Your task to perform on an android device: change your default location settings in chrome Image 0: 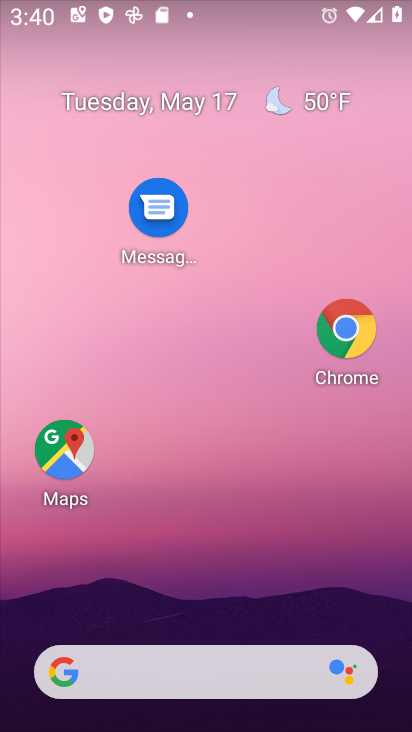
Step 0: drag from (260, 595) to (257, 118)
Your task to perform on an android device: change your default location settings in chrome Image 1: 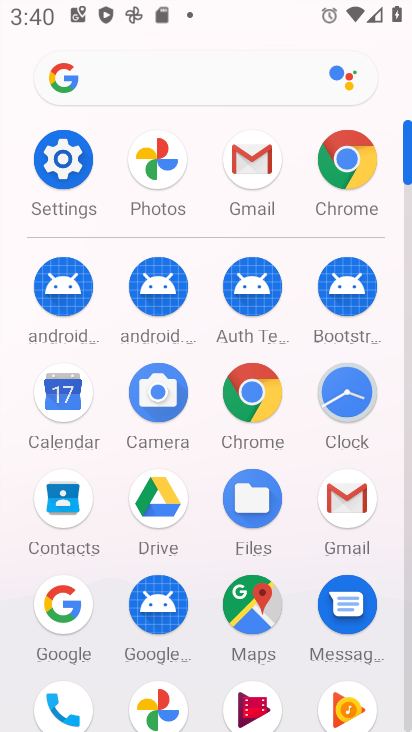
Step 1: click (358, 174)
Your task to perform on an android device: change your default location settings in chrome Image 2: 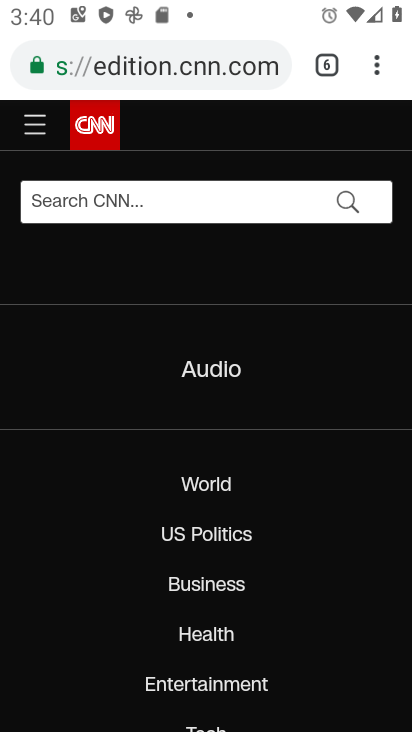
Step 2: click (378, 51)
Your task to perform on an android device: change your default location settings in chrome Image 3: 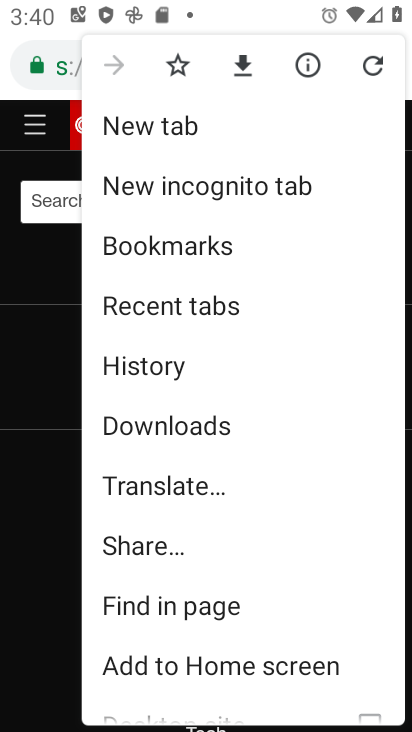
Step 3: drag from (165, 531) to (178, 288)
Your task to perform on an android device: change your default location settings in chrome Image 4: 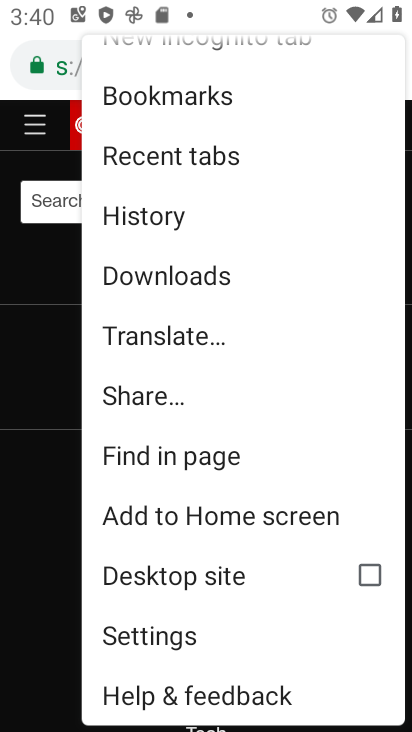
Step 4: click (163, 628)
Your task to perform on an android device: change your default location settings in chrome Image 5: 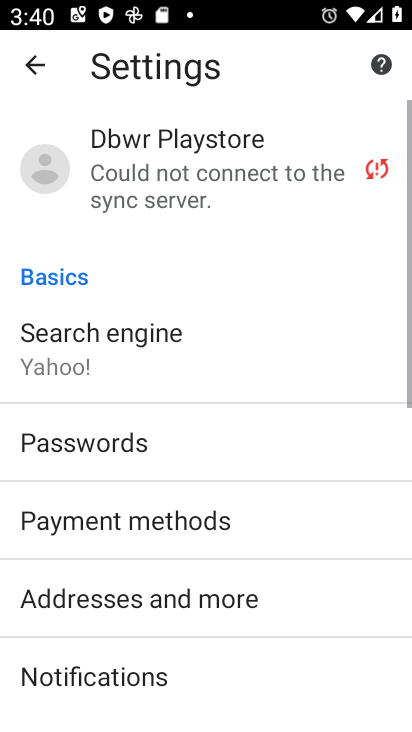
Step 5: drag from (187, 591) to (234, 368)
Your task to perform on an android device: change your default location settings in chrome Image 6: 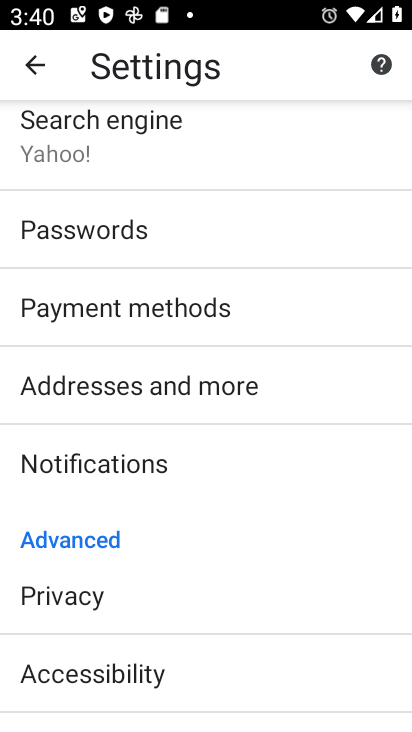
Step 6: click (240, 410)
Your task to perform on an android device: change your default location settings in chrome Image 7: 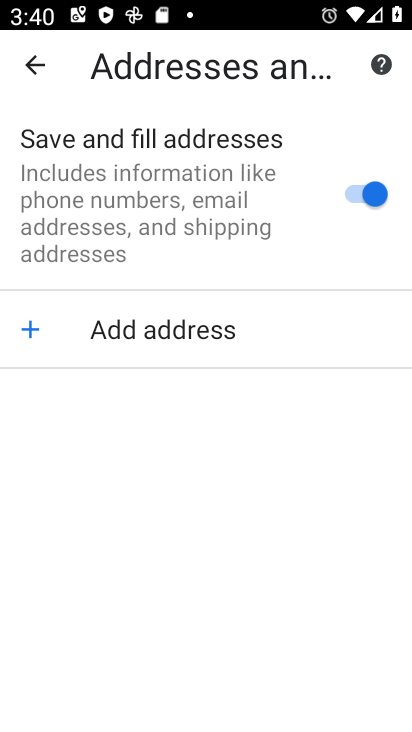
Step 7: task complete